Your task to perform on an android device: Open calendar and show me the second week of next month Image 0: 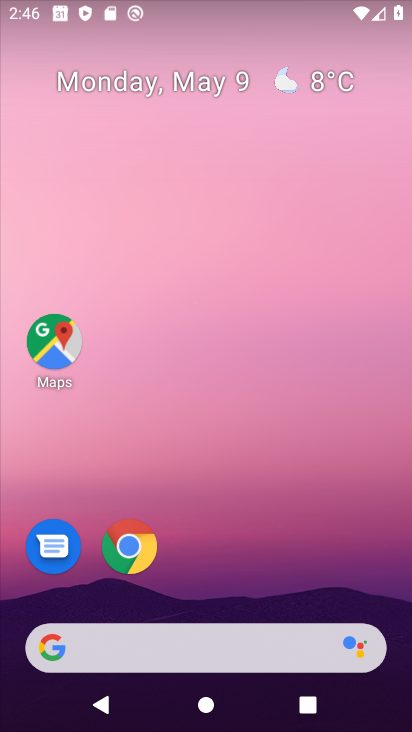
Step 0: drag from (242, 544) to (266, 42)
Your task to perform on an android device: Open calendar and show me the second week of next month Image 1: 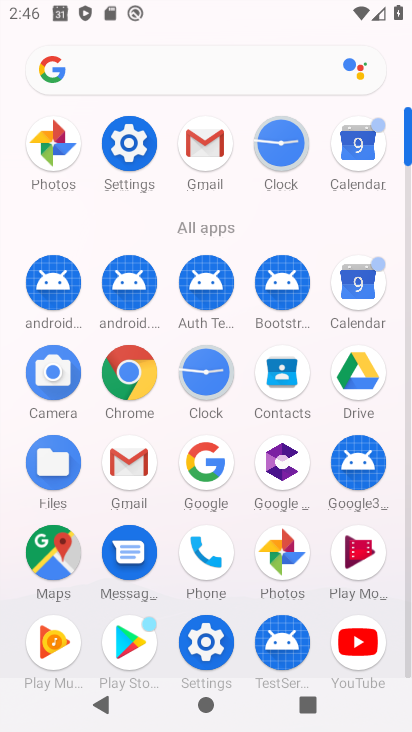
Step 1: click (347, 147)
Your task to perform on an android device: Open calendar and show me the second week of next month Image 2: 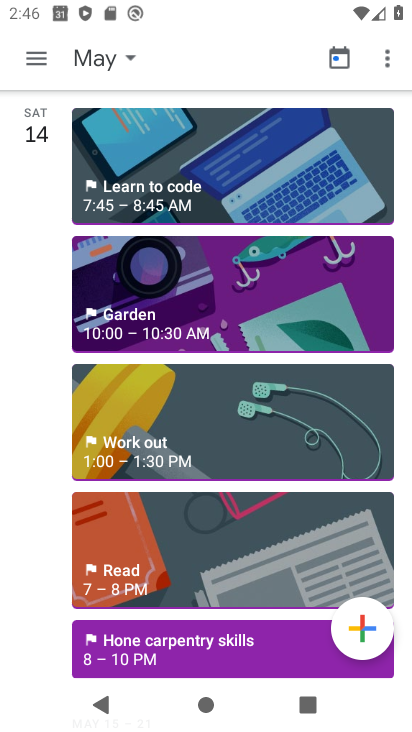
Step 2: click (36, 51)
Your task to perform on an android device: Open calendar and show me the second week of next month Image 3: 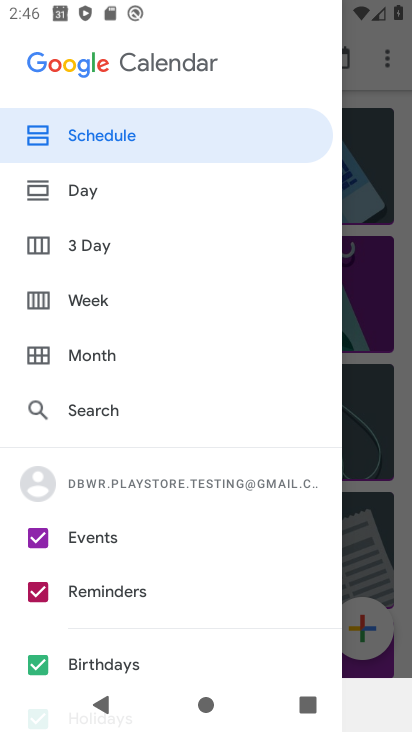
Step 3: click (42, 345)
Your task to perform on an android device: Open calendar and show me the second week of next month Image 4: 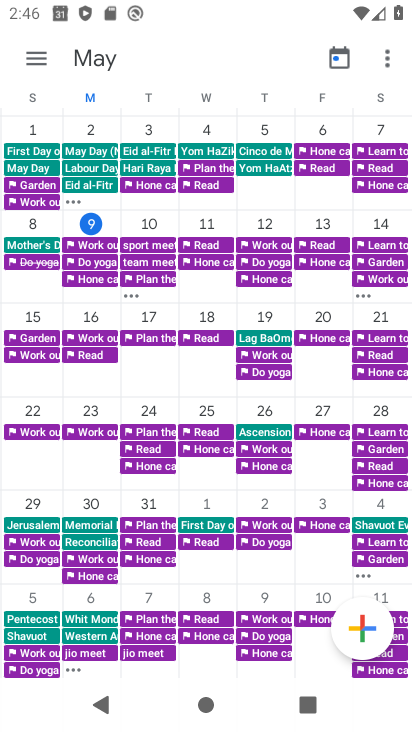
Step 4: drag from (353, 364) to (23, 414)
Your task to perform on an android device: Open calendar and show me the second week of next month Image 5: 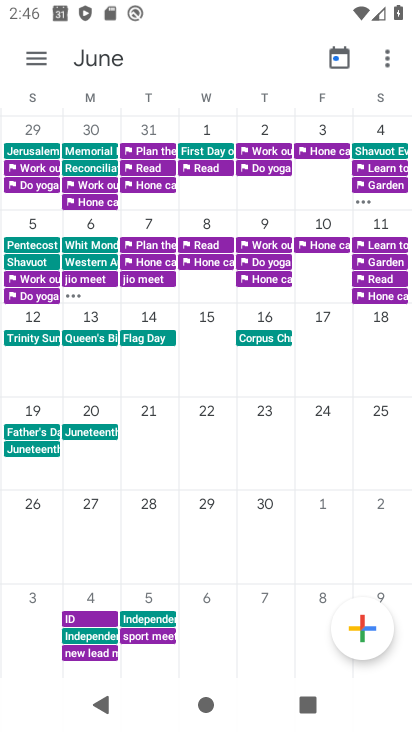
Step 5: click (35, 313)
Your task to perform on an android device: Open calendar and show me the second week of next month Image 6: 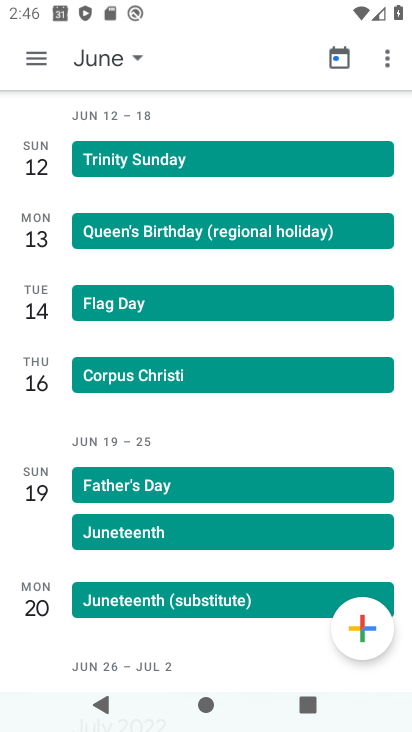
Step 6: click (36, 49)
Your task to perform on an android device: Open calendar and show me the second week of next month Image 7: 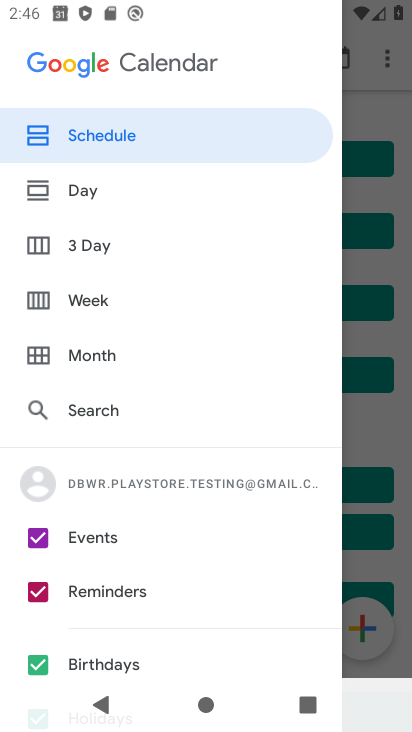
Step 7: click (36, 288)
Your task to perform on an android device: Open calendar and show me the second week of next month Image 8: 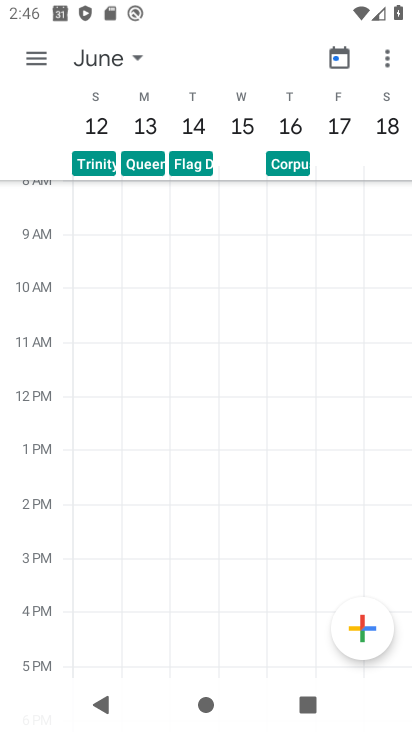
Step 8: task complete